Your task to perform on an android device: Do I have any events this weekend? Image 0: 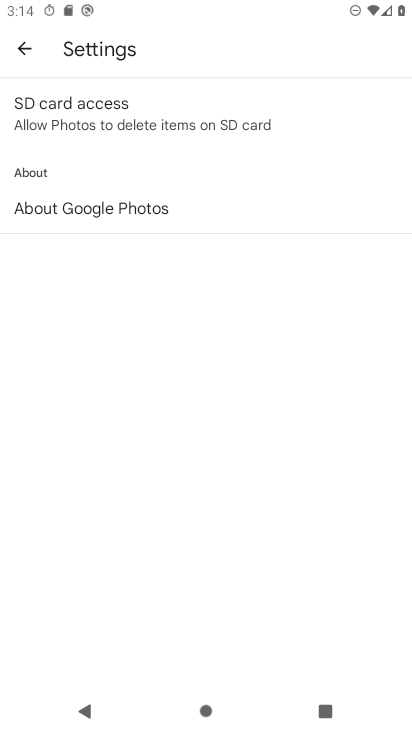
Step 0: press home button
Your task to perform on an android device: Do I have any events this weekend? Image 1: 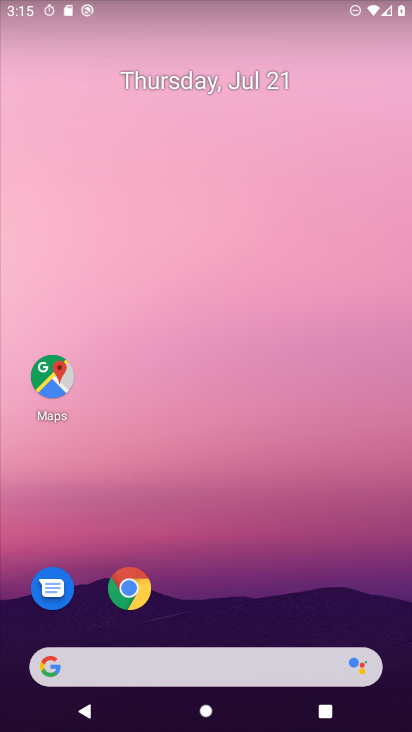
Step 1: drag from (221, 659) to (278, 131)
Your task to perform on an android device: Do I have any events this weekend? Image 2: 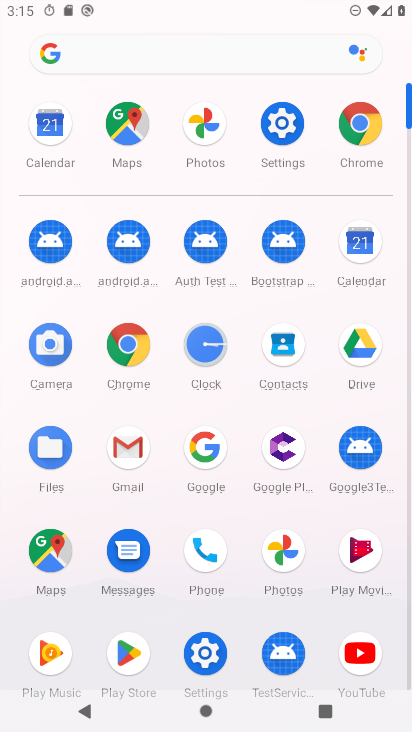
Step 2: click (365, 255)
Your task to perform on an android device: Do I have any events this weekend? Image 3: 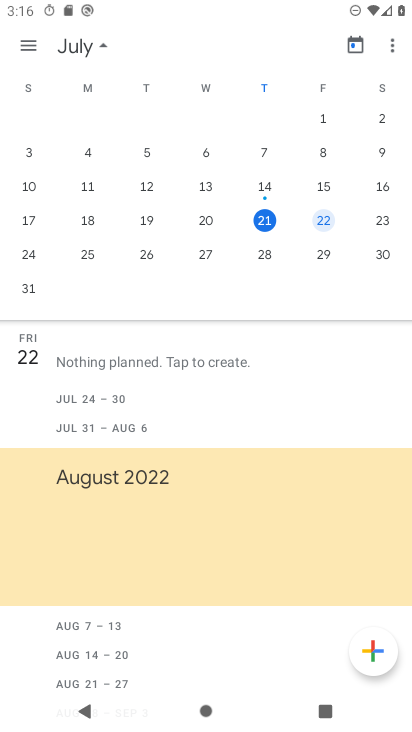
Step 3: click (381, 224)
Your task to perform on an android device: Do I have any events this weekend? Image 4: 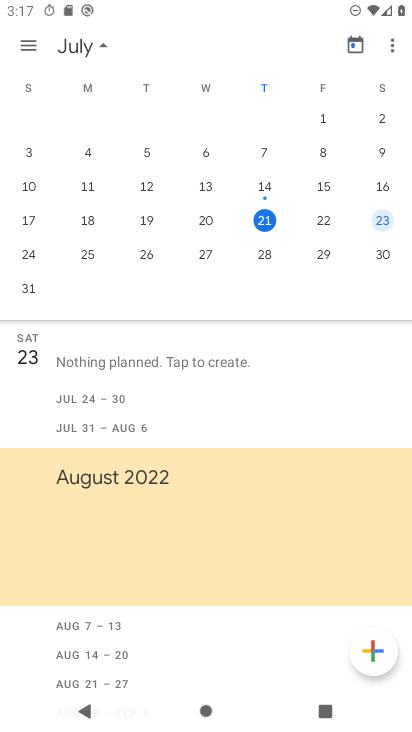
Step 4: task complete